Your task to perform on an android device: see tabs open on other devices in the chrome app Image 0: 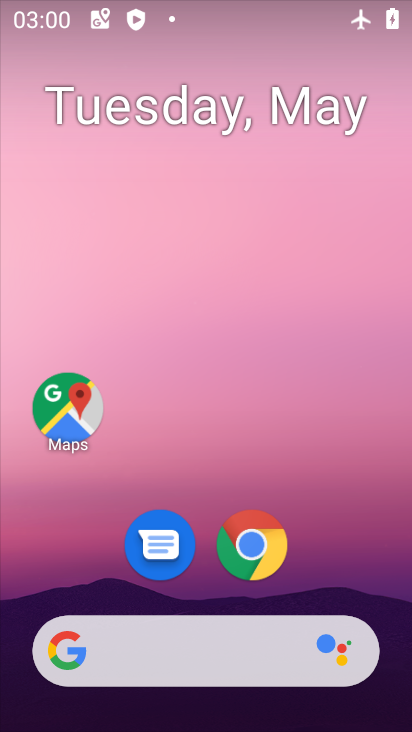
Step 0: click (251, 543)
Your task to perform on an android device: see tabs open on other devices in the chrome app Image 1: 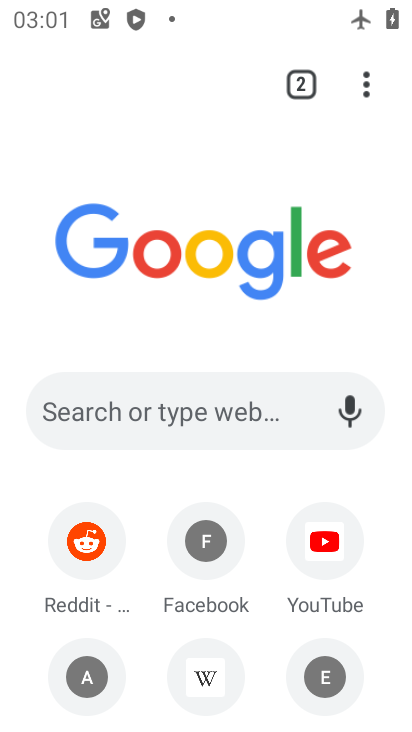
Step 1: click (365, 88)
Your task to perform on an android device: see tabs open on other devices in the chrome app Image 2: 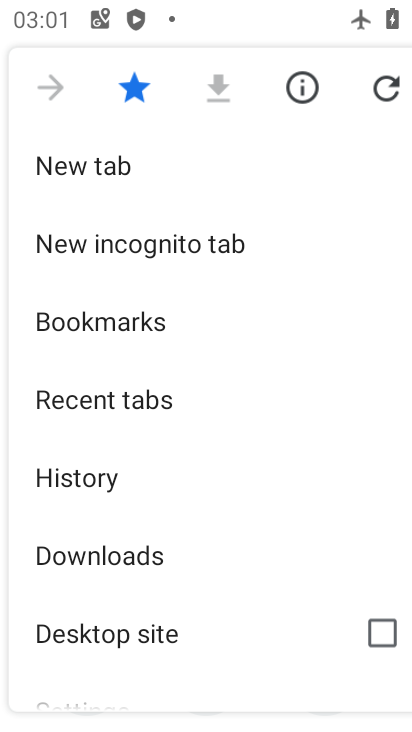
Step 2: click (93, 393)
Your task to perform on an android device: see tabs open on other devices in the chrome app Image 3: 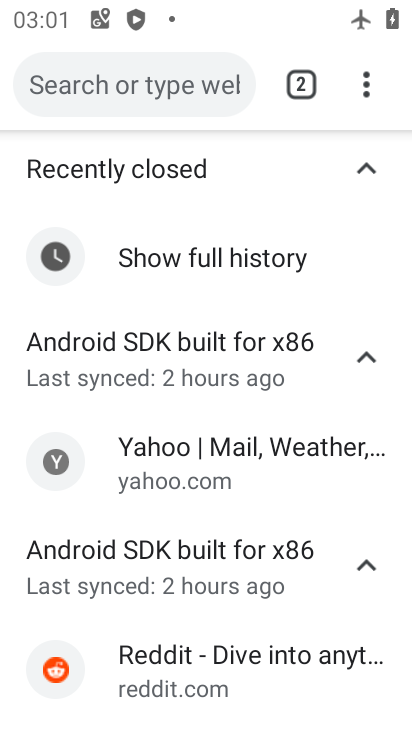
Step 3: task complete